Your task to perform on an android device: Do I have any events today? Image 0: 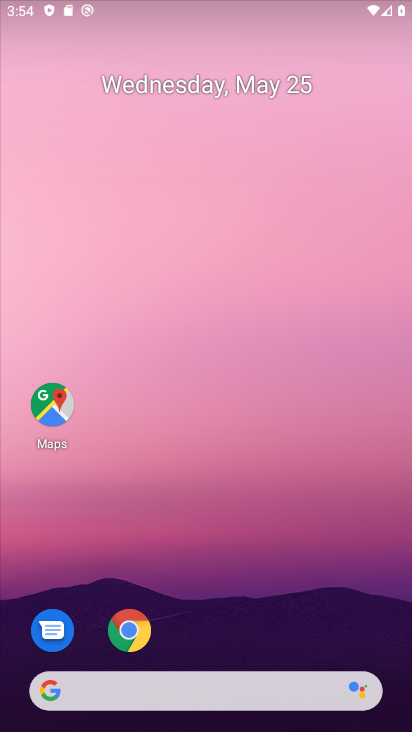
Step 0: drag from (224, 696) to (164, 102)
Your task to perform on an android device: Do I have any events today? Image 1: 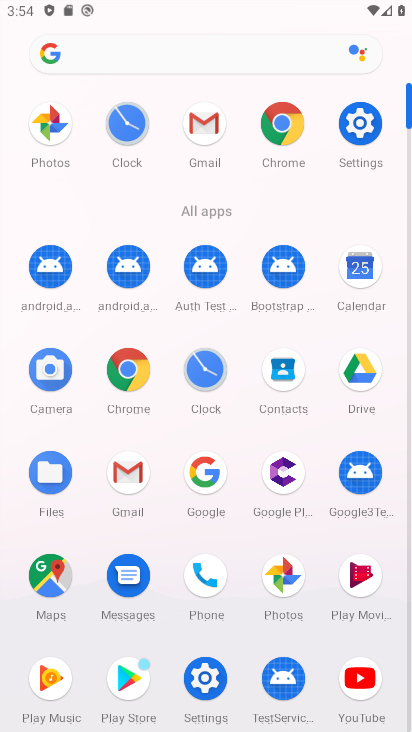
Step 1: click (365, 265)
Your task to perform on an android device: Do I have any events today? Image 2: 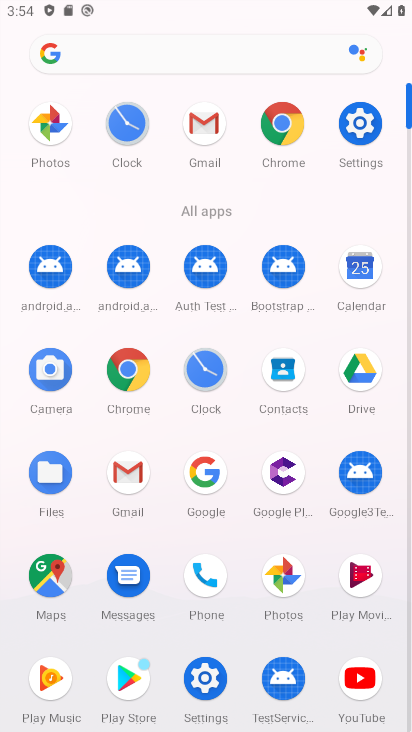
Step 2: click (366, 264)
Your task to perform on an android device: Do I have any events today? Image 3: 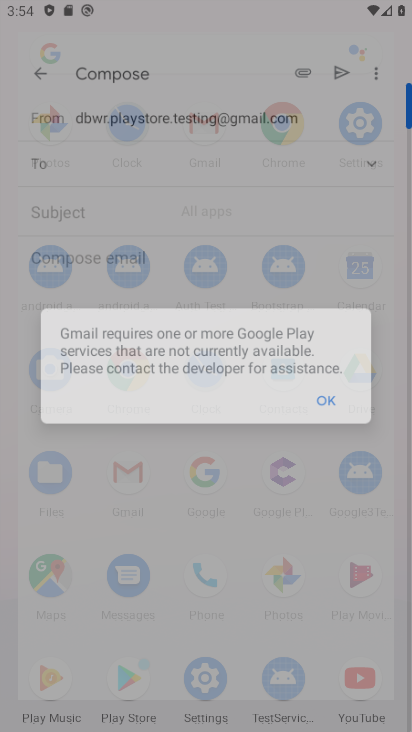
Step 3: click (367, 264)
Your task to perform on an android device: Do I have any events today? Image 4: 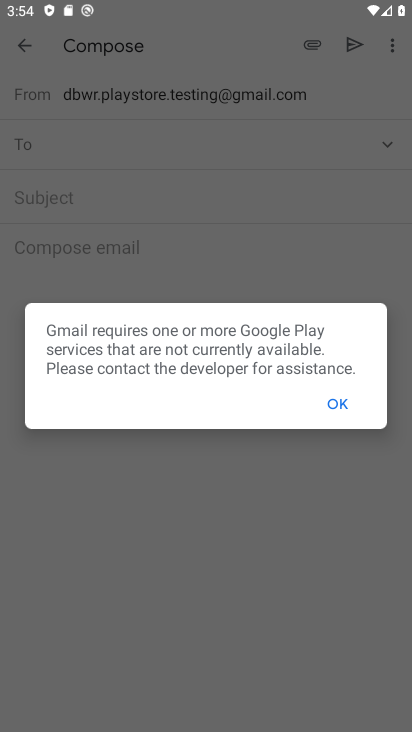
Step 4: click (367, 264)
Your task to perform on an android device: Do I have any events today? Image 5: 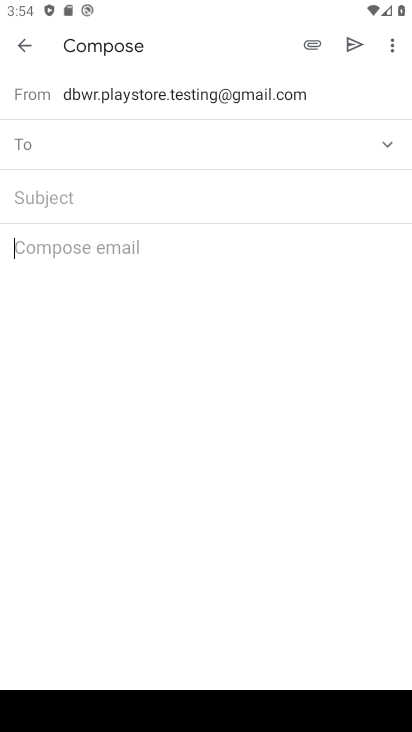
Step 5: click (16, 40)
Your task to perform on an android device: Do I have any events today? Image 6: 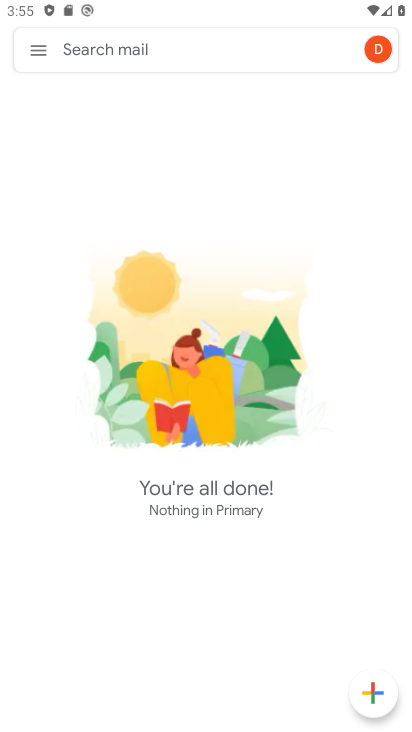
Step 6: click (37, 46)
Your task to perform on an android device: Do I have any events today? Image 7: 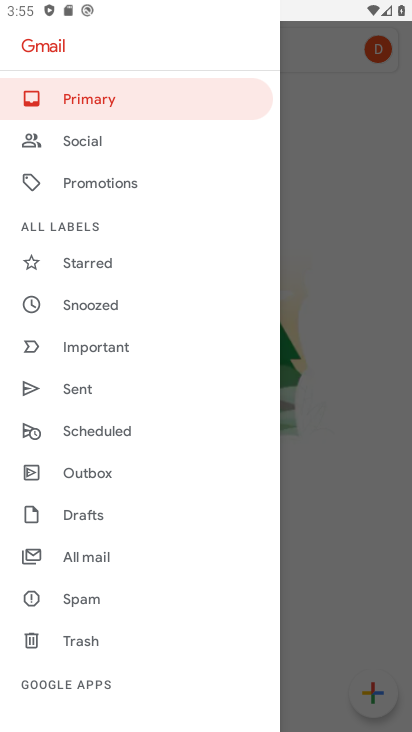
Step 7: click (339, 224)
Your task to perform on an android device: Do I have any events today? Image 8: 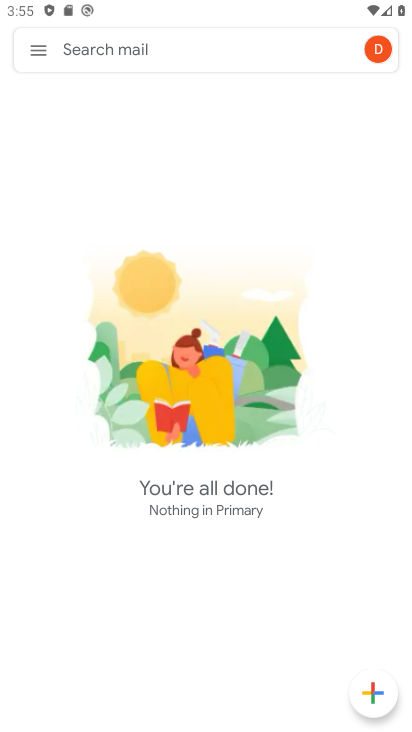
Step 8: press home button
Your task to perform on an android device: Do I have any events today? Image 9: 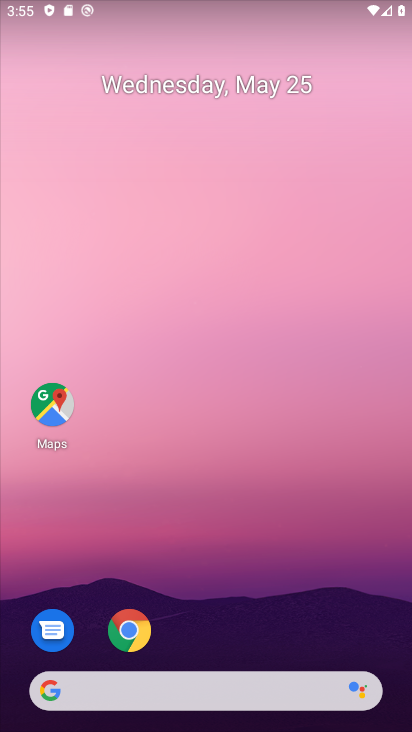
Step 9: drag from (193, 643) to (147, 130)
Your task to perform on an android device: Do I have any events today? Image 10: 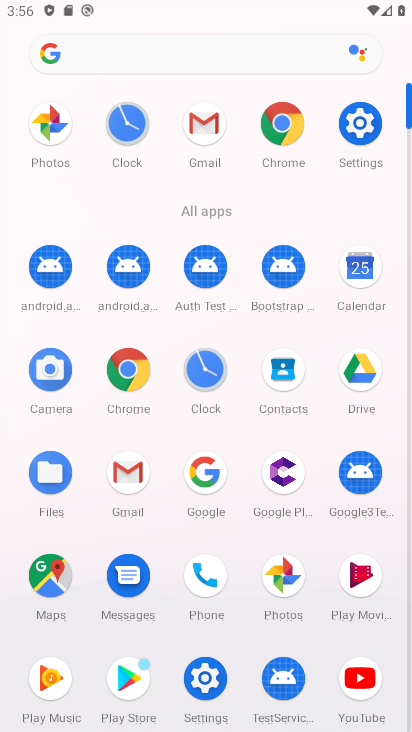
Step 10: click (366, 259)
Your task to perform on an android device: Do I have any events today? Image 11: 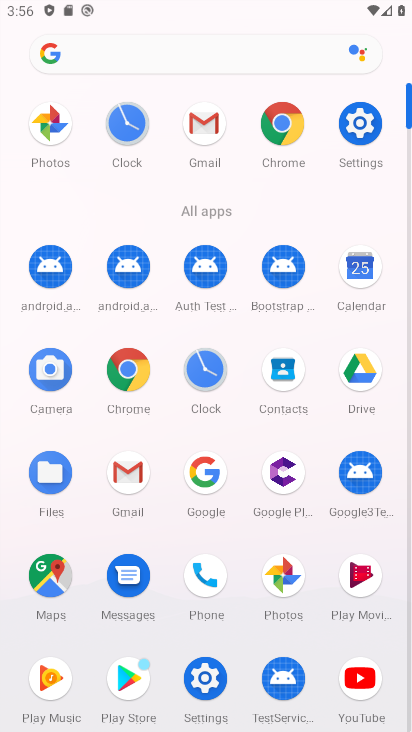
Step 11: click (366, 259)
Your task to perform on an android device: Do I have any events today? Image 12: 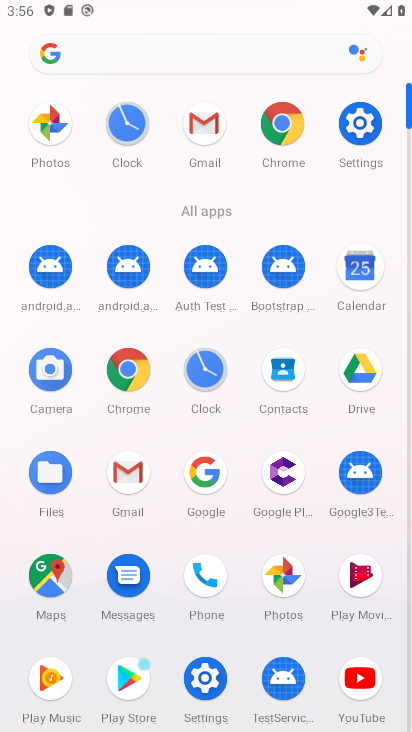
Step 12: click (366, 264)
Your task to perform on an android device: Do I have any events today? Image 13: 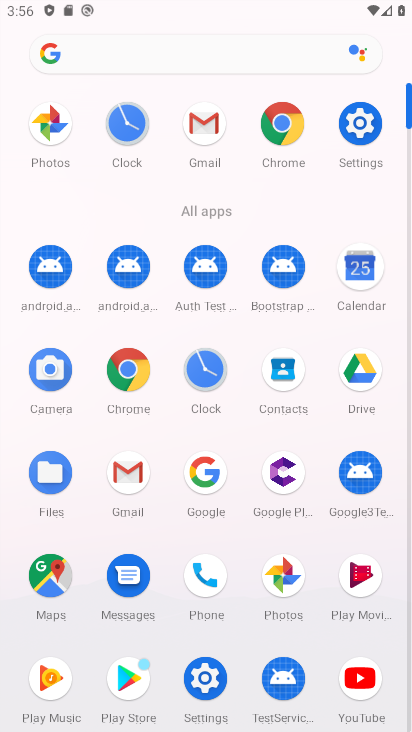
Step 13: click (363, 268)
Your task to perform on an android device: Do I have any events today? Image 14: 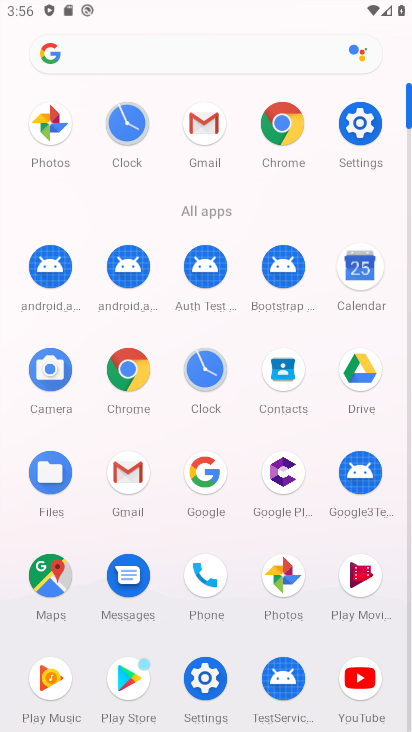
Step 14: click (357, 272)
Your task to perform on an android device: Do I have any events today? Image 15: 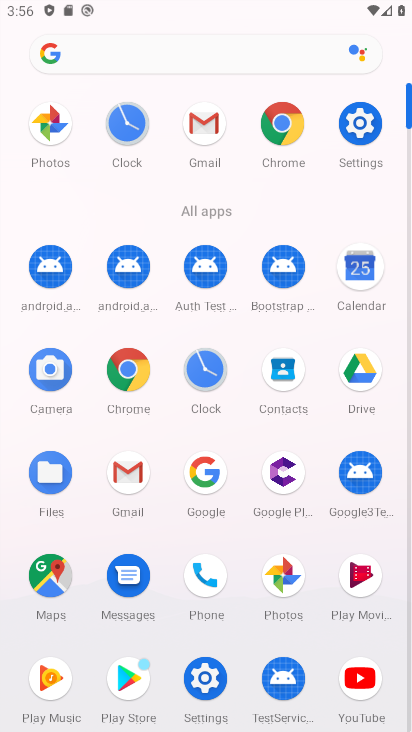
Step 15: click (359, 274)
Your task to perform on an android device: Do I have any events today? Image 16: 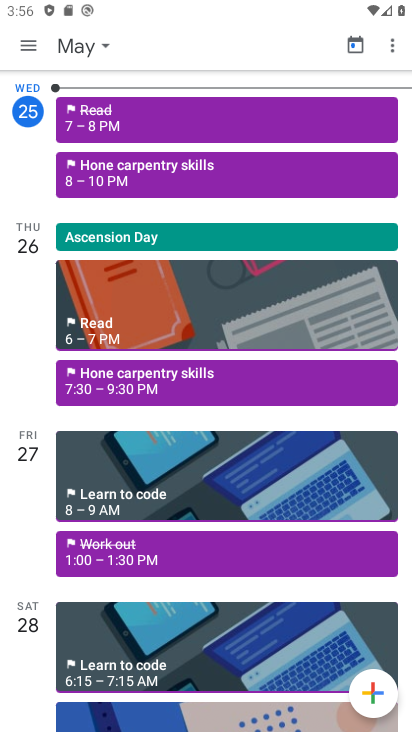
Step 16: click (359, 274)
Your task to perform on an android device: Do I have any events today? Image 17: 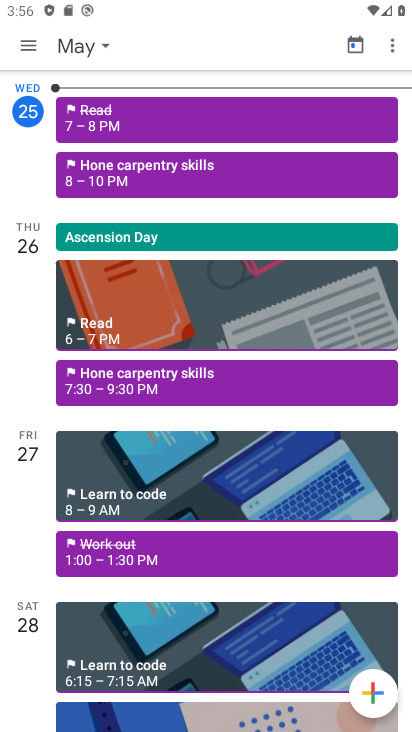
Step 17: click (359, 274)
Your task to perform on an android device: Do I have any events today? Image 18: 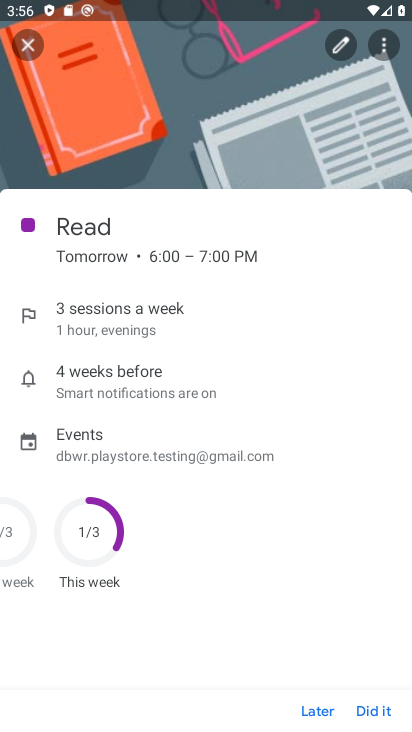
Step 18: task complete